Your task to perform on an android device: open sync settings in chrome Image 0: 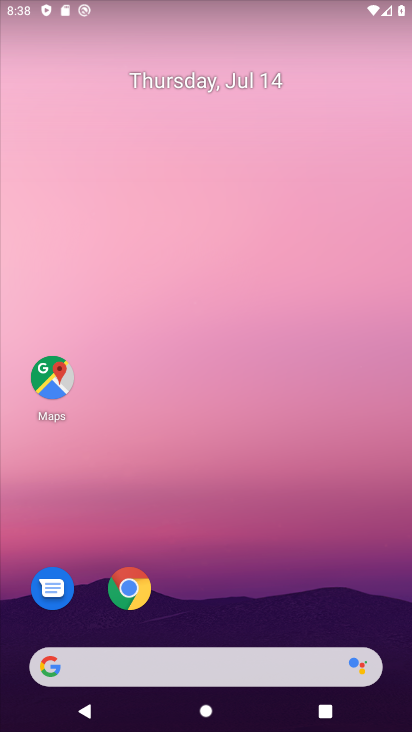
Step 0: drag from (271, 614) to (288, 130)
Your task to perform on an android device: open sync settings in chrome Image 1: 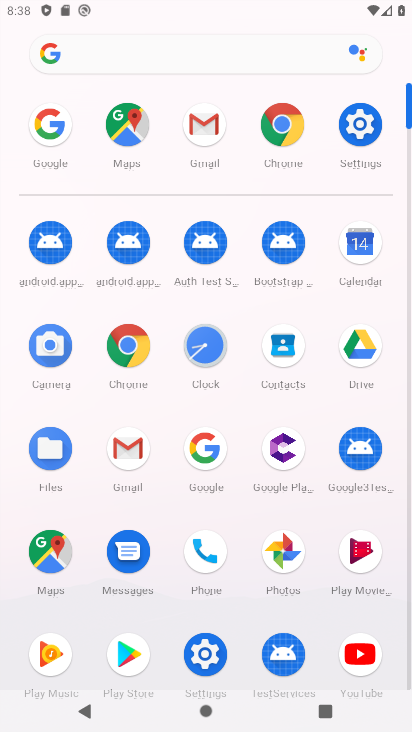
Step 1: click (284, 126)
Your task to perform on an android device: open sync settings in chrome Image 2: 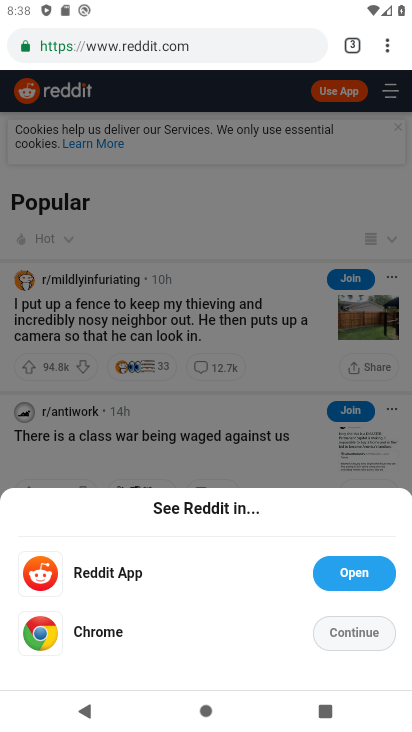
Step 2: click (379, 49)
Your task to perform on an android device: open sync settings in chrome Image 3: 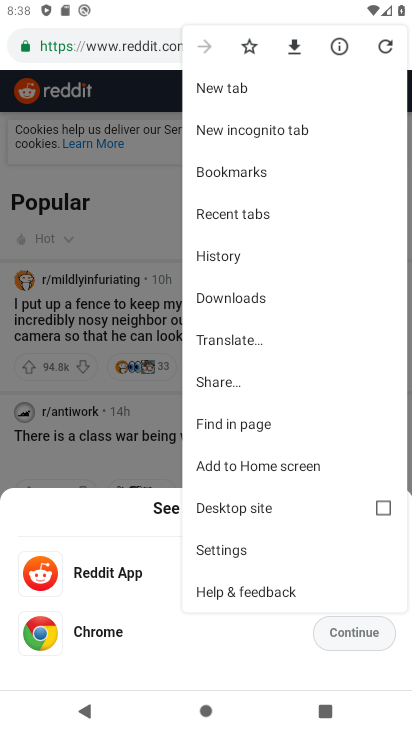
Step 3: click (233, 548)
Your task to perform on an android device: open sync settings in chrome Image 4: 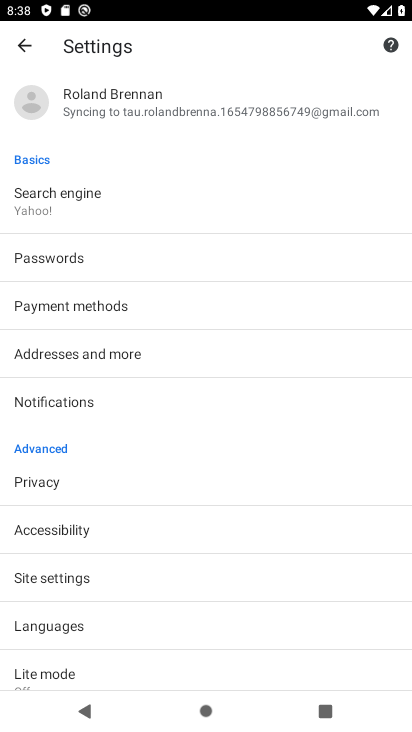
Step 4: click (91, 575)
Your task to perform on an android device: open sync settings in chrome Image 5: 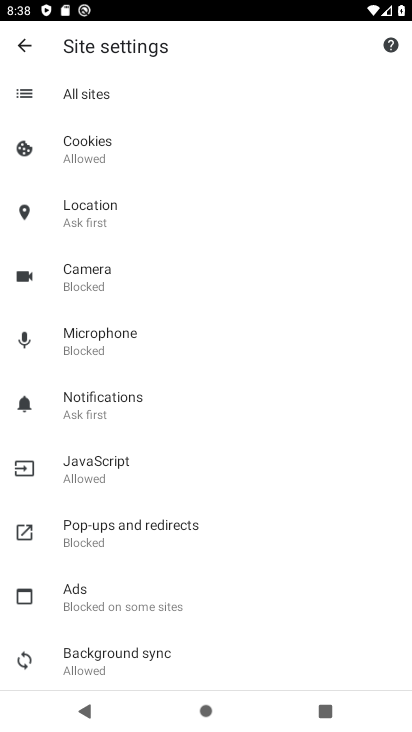
Step 5: click (98, 651)
Your task to perform on an android device: open sync settings in chrome Image 6: 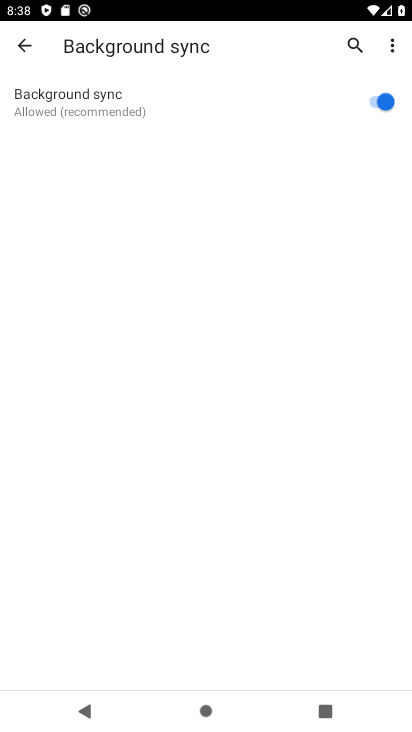
Step 6: task complete